Your task to perform on an android device: Open wifi settings Image 0: 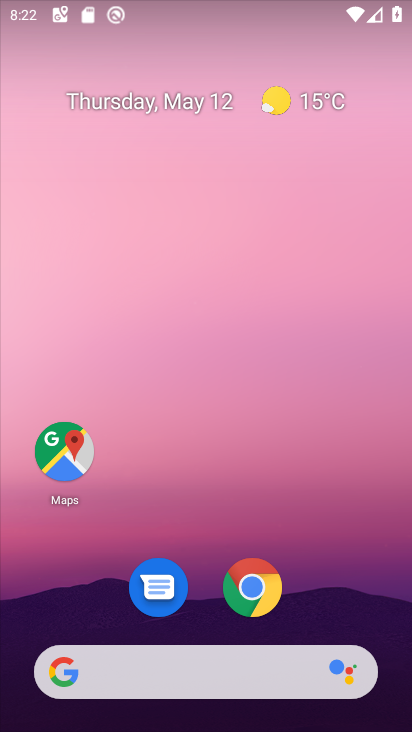
Step 0: drag from (381, 606) to (338, 79)
Your task to perform on an android device: Open wifi settings Image 1: 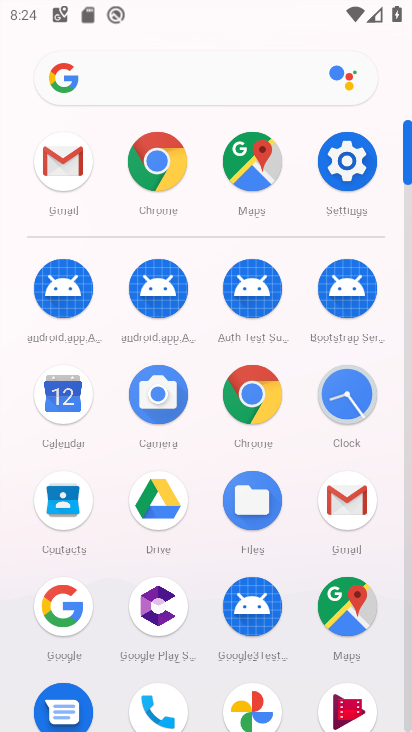
Step 1: click (353, 182)
Your task to perform on an android device: Open wifi settings Image 2: 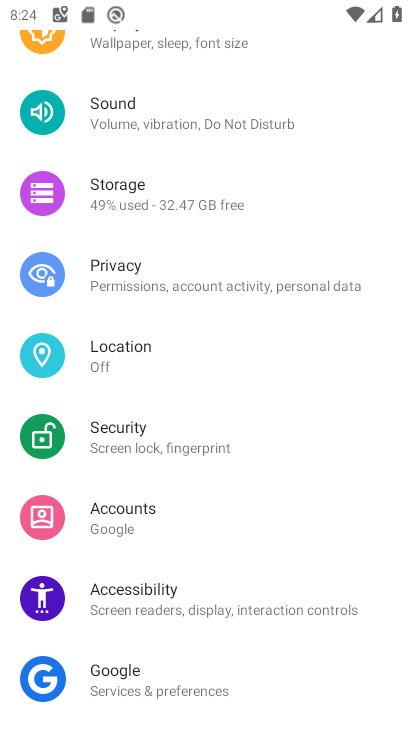
Step 2: drag from (136, 157) to (153, 557)
Your task to perform on an android device: Open wifi settings Image 3: 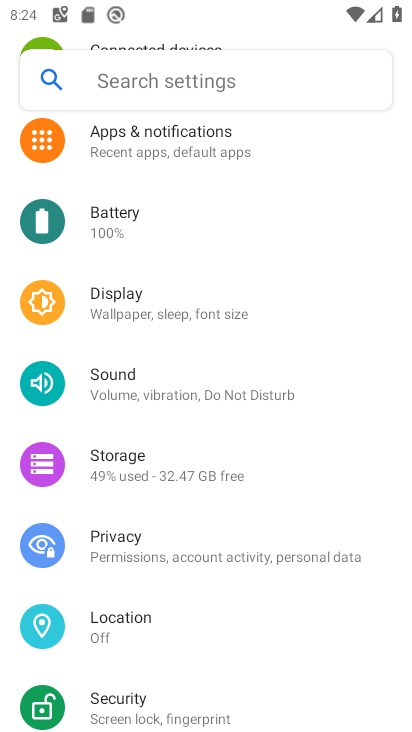
Step 3: drag from (207, 162) to (250, 524)
Your task to perform on an android device: Open wifi settings Image 4: 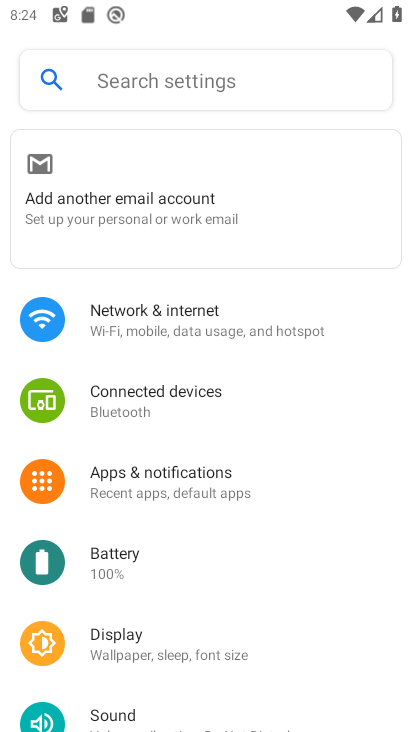
Step 4: click (196, 296)
Your task to perform on an android device: Open wifi settings Image 5: 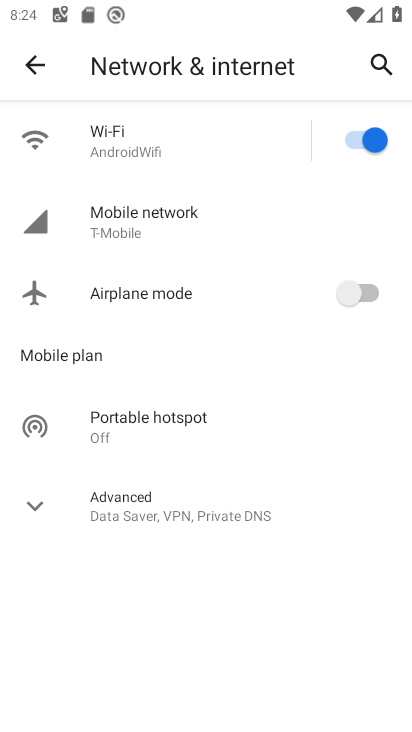
Step 5: click (190, 121)
Your task to perform on an android device: Open wifi settings Image 6: 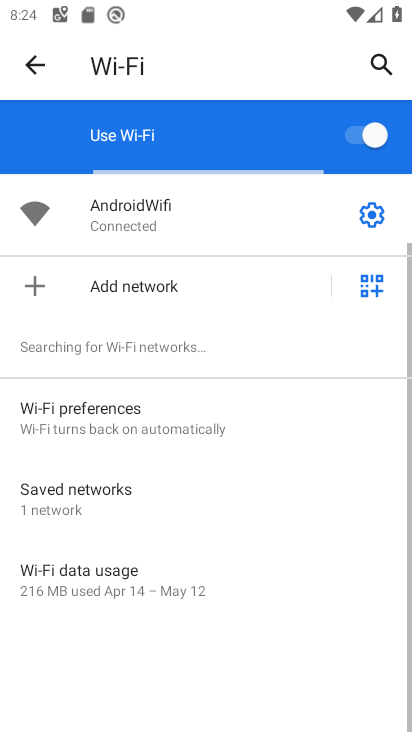
Step 6: task complete